Your task to perform on an android device: turn off wifi Image 0: 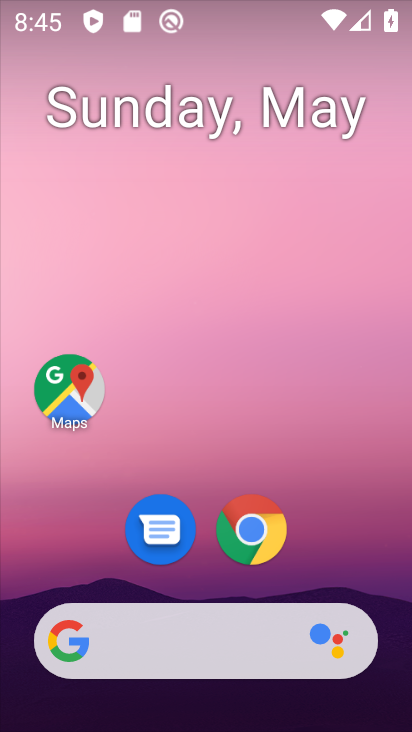
Step 0: drag from (203, 569) to (176, 57)
Your task to perform on an android device: turn off wifi Image 1: 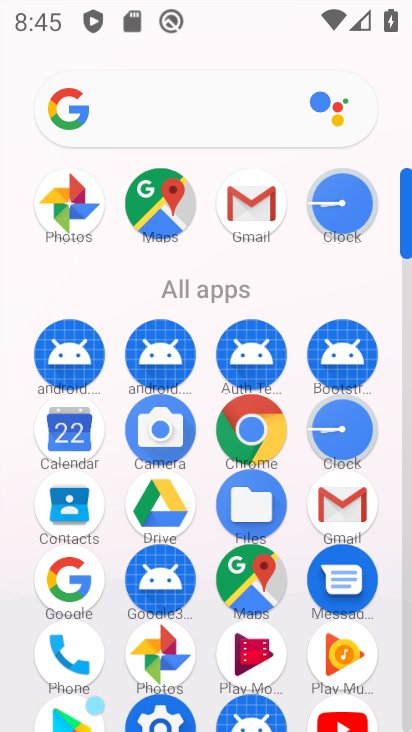
Step 1: drag from (209, 612) to (200, 138)
Your task to perform on an android device: turn off wifi Image 2: 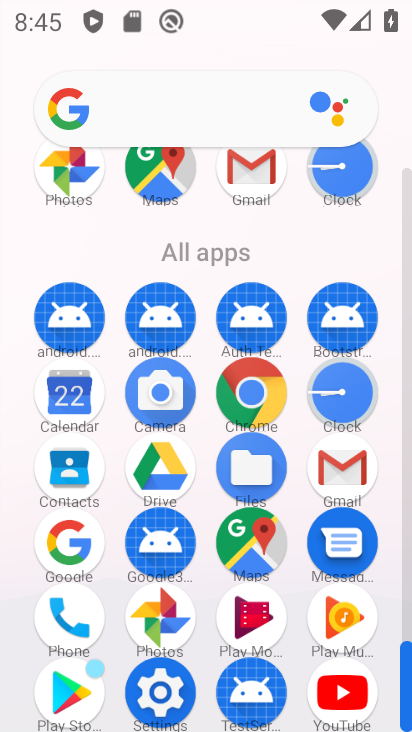
Step 2: click (163, 694)
Your task to perform on an android device: turn off wifi Image 3: 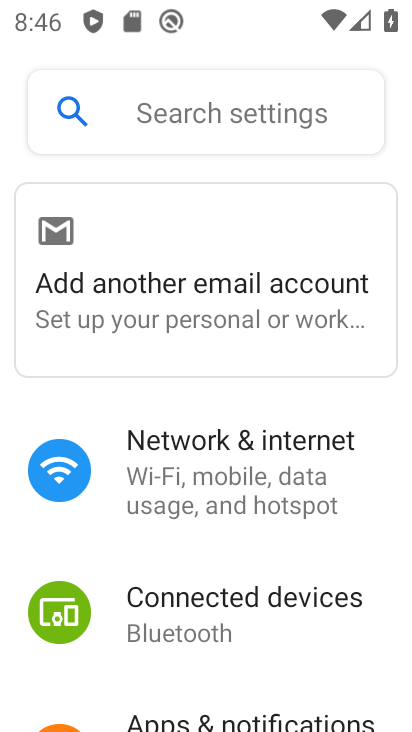
Step 3: click (272, 449)
Your task to perform on an android device: turn off wifi Image 4: 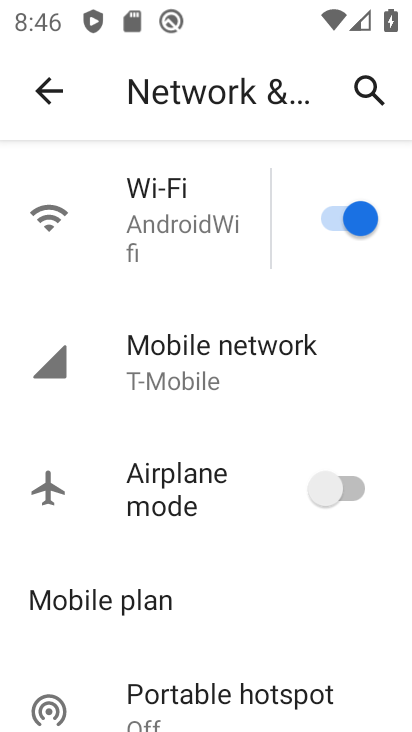
Step 4: click (309, 198)
Your task to perform on an android device: turn off wifi Image 5: 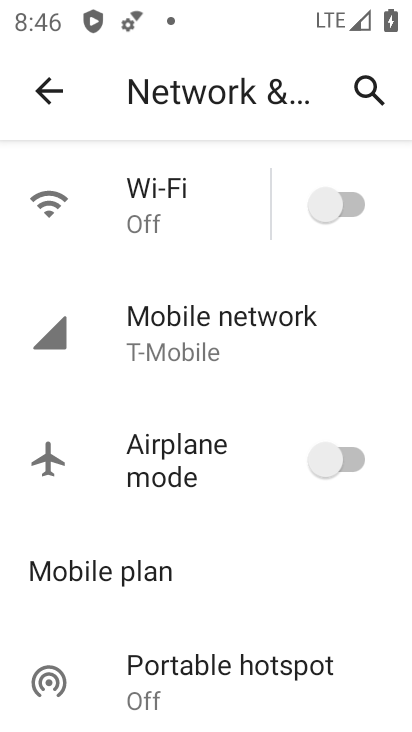
Step 5: task complete